Your task to perform on an android device: Show the shopping cart on amazon. Search for logitech g pro on amazon, select the first entry, add it to the cart, then select checkout. Image 0: 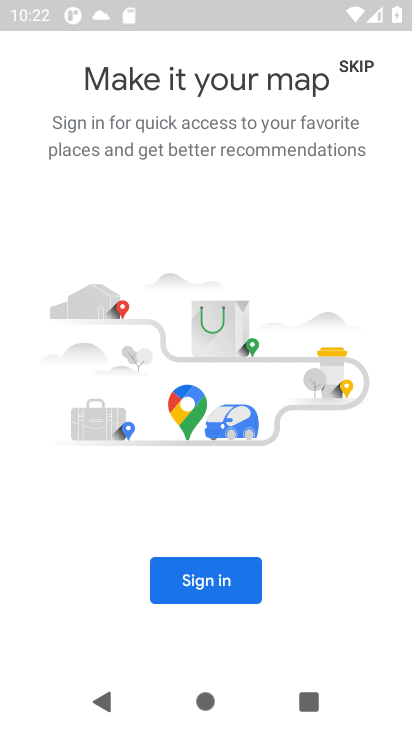
Step 0: press home button
Your task to perform on an android device: Show the shopping cart on amazon. Search for logitech g pro on amazon, select the first entry, add it to the cart, then select checkout. Image 1: 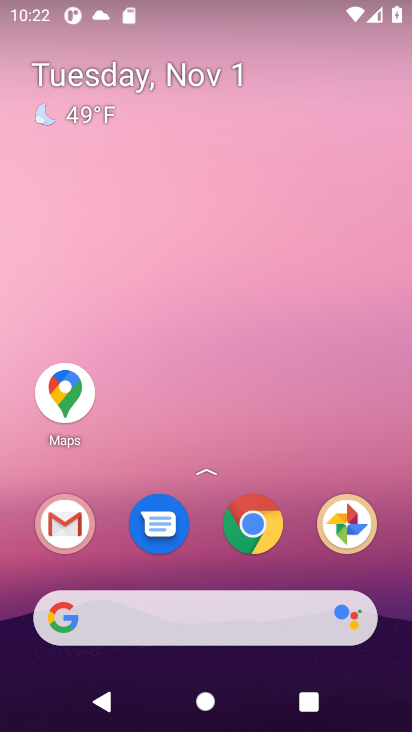
Step 1: click (91, 615)
Your task to perform on an android device: Show the shopping cart on amazon. Search for logitech g pro on amazon, select the first entry, add it to the cart, then select checkout. Image 2: 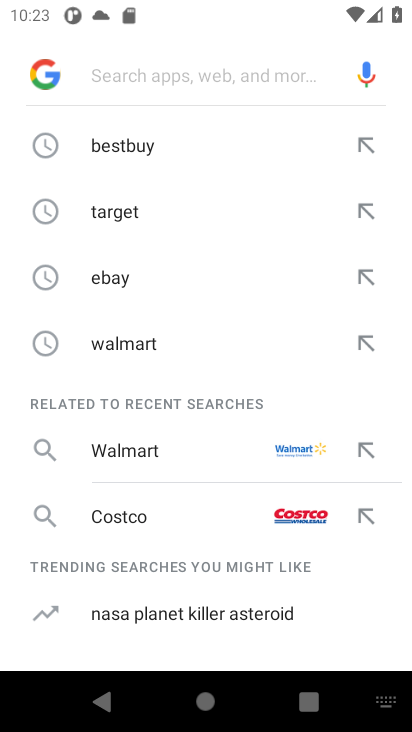
Step 2: type "amazon"
Your task to perform on an android device: Show the shopping cart on amazon. Search for logitech g pro on amazon, select the first entry, add it to the cart, then select checkout. Image 3: 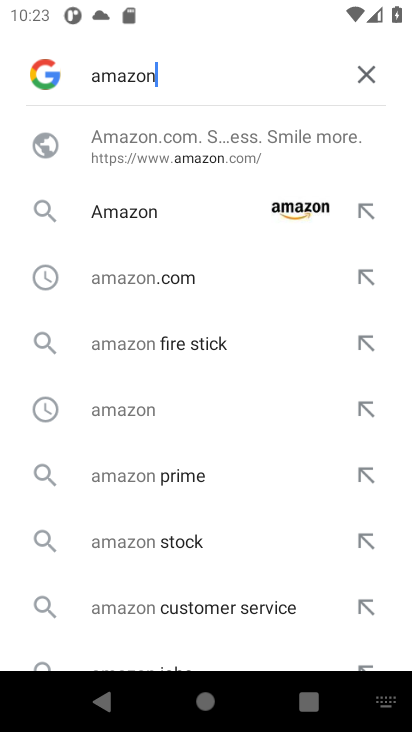
Step 3: press enter
Your task to perform on an android device: Show the shopping cart on amazon. Search for logitech g pro on amazon, select the first entry, add it to the cart, then select checkout. Image 4: 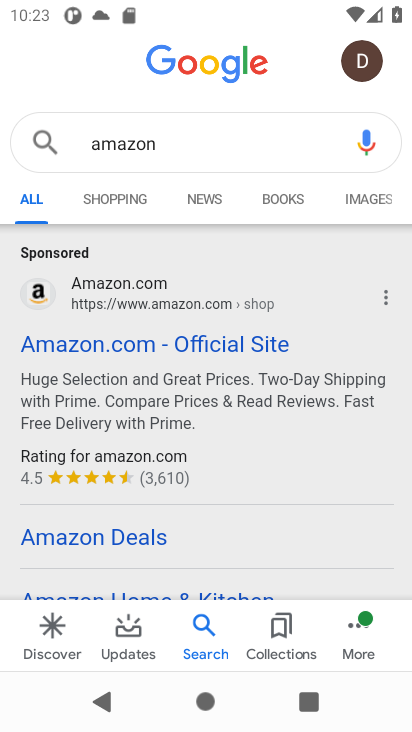
Step 4: click (134, 349)
Your task to perform on an android device: Show the shopping cart on amazon. Search for logitech g pro on amazon, select the first entry, add it to the cart, then select checkout. Image 5: 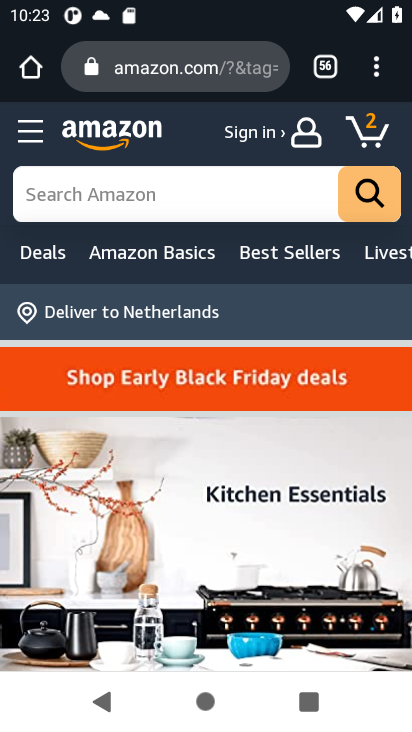
Step 5: click (368, 130)
Your task to perform on an android device: Show the shopping cart on amazon. Search for logitech g pro on amazon, select the first entry, add it to the cart, then select checkout. Image 6: 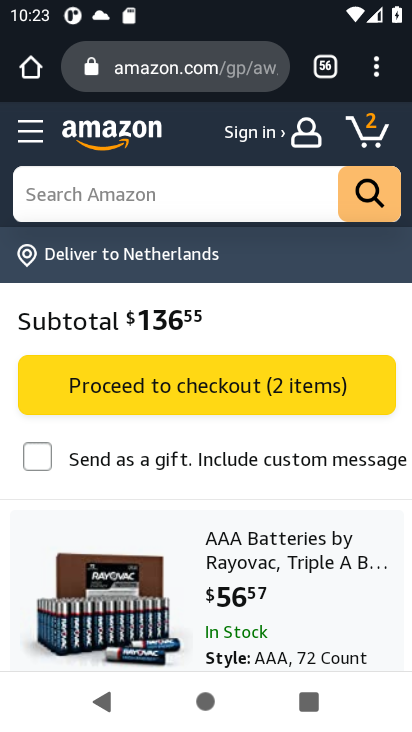
Step 6: click (118, 189)
Your task to perform on an android device: Show the shopping cart on amazon. Search for logitech g pro on amazon, select the first entry, add it to the cart, then select checkout. Image 7: 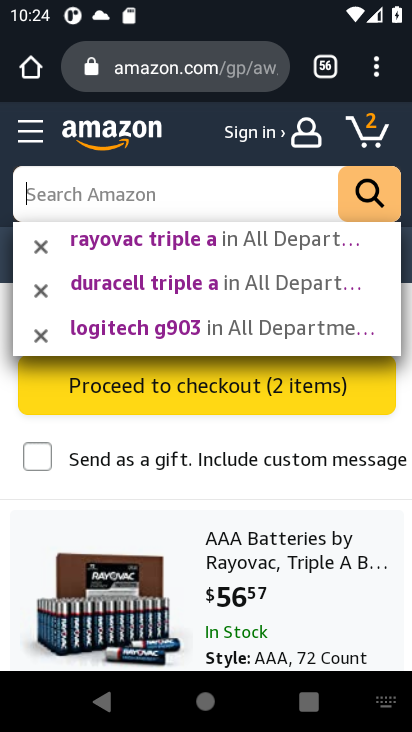
Step 7: type " logitech g pro"
Your task to perform on an android device: Show the shopping cart on amazon. Search for logitech g pro on amazon, select the first entry, add it to the cart, then select checkout. Image 8: 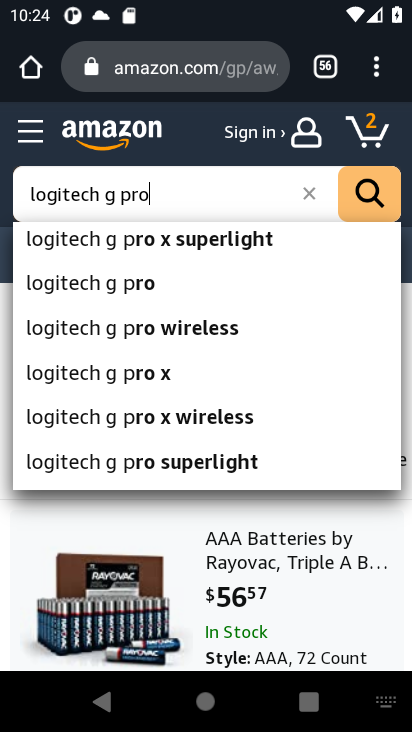
Step 8: press enter
Your task to perform on an android device: Show the shopping cart on amazon. Search for logitech g pro on amazon, select the first entry, add it to the cart, then select checkout. Image 9: 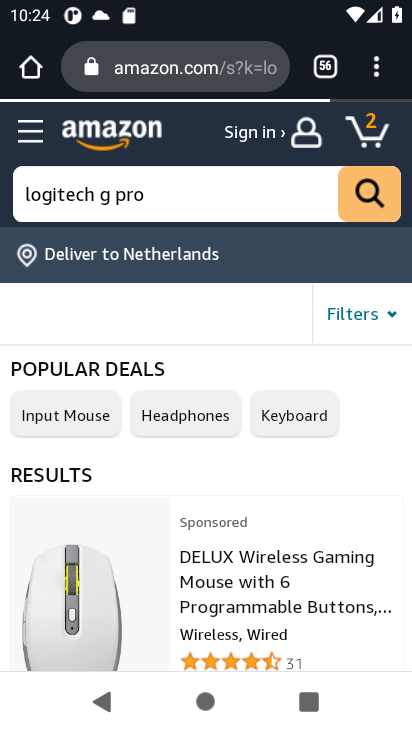
Step 9: drag from (316, 604) to (317, 350)
Your task to perform on an android device: Show the shopping cart on amazon. Search for logitech g pro on amazon, select the first entry, add it to the cart, then select checkout. Image 10: 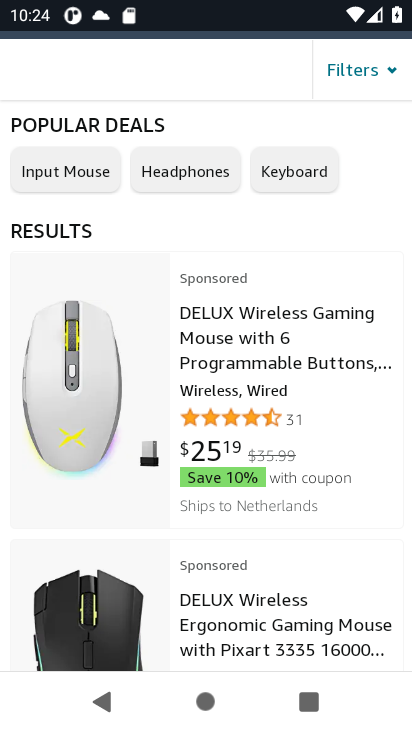
Step 10: drag from (282, 572) to (288, 372)
Your task to perform on an android device: Show the shopping cart on amazon. Search for logitech g pro on amazon, select the first entry, add it to the cart, then select checkout. Image 11: 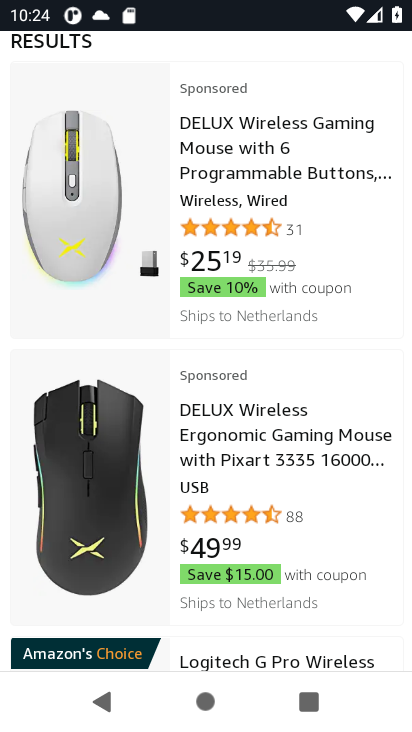
Step 11: drag from (278, 521) to (293, 274)
Your task to perform on an android device: Show the shopping cart on amazon. Search for logitech g pro on amazon, select the first entry, add it to the cart, then select checkout. Image 12: 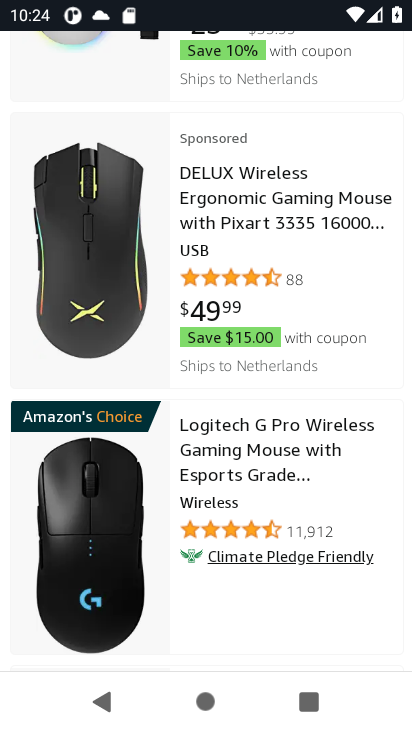
Step 12: drag from (293, 521) to (301, 287)
Your task to perform on an android device: Show the shopping cart on amazon. Search for logitech g pro on amazon, select the first entry, add it to the cart, then select checkout. Image 13: 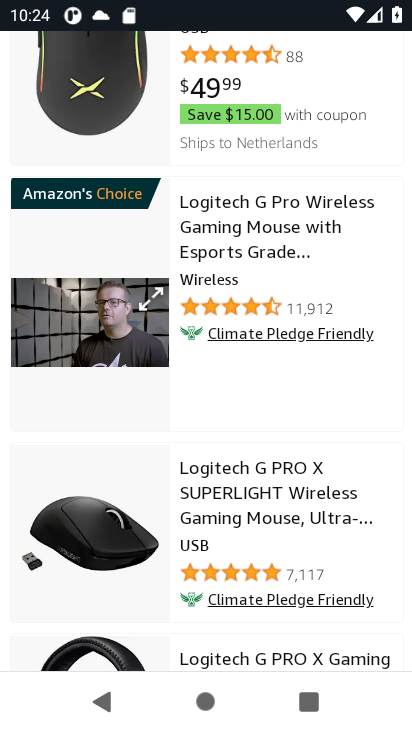
Step 13: click (254, 233)
Your task to perform on an android device: Show the shopping cart on amazon. Search for logitech g pro on amazon, select the first entry, add it to the cart, then select checkout. Image 14: 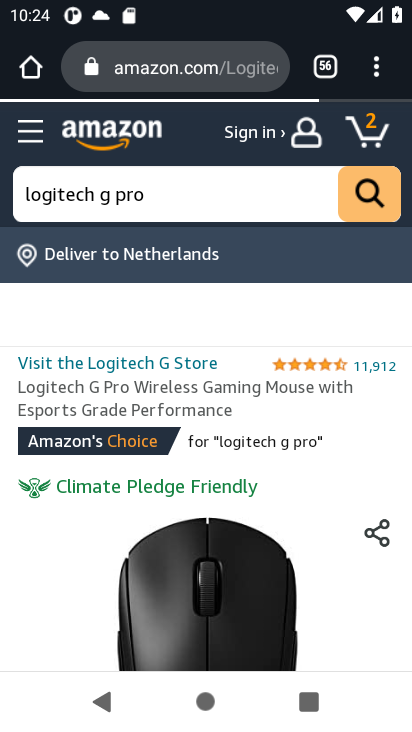
Step 14: drag from (287, 540) to (351, 244)
Your task to perform on an android device: Show the shopping cart on amazon. Search for logitech g pro on amazon, select the first entry, add it to the cart, then select checkout. Image 15: 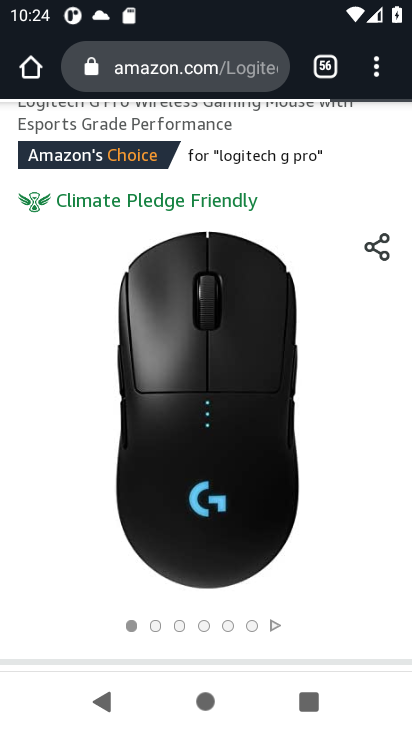
Step 15: drag from (328, 531) to (283, 257)
Your task to perform on an android device: Show the shopping cart on amazon. Search for logitech g pro on amazon, select the first entry, add it to the cart, then select checkout. Image 16: 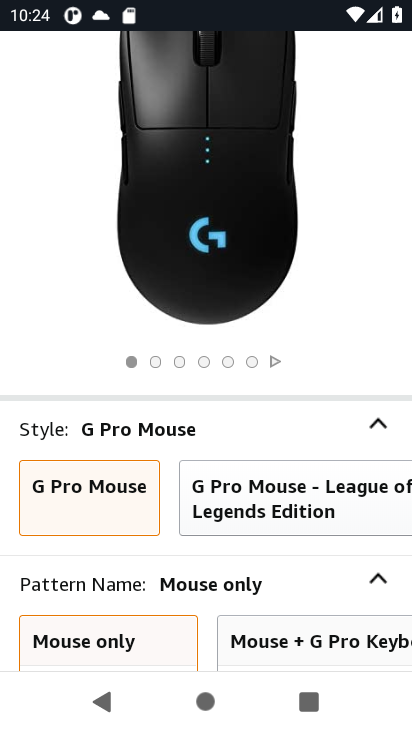
Step 16: drag from (277, 514) to (282, 247)
Your task to perform on an android device: Show the shopping cart on amazon. Search for logitech g pro on amazon, select the first entry, add it to the cart, then select checkout. Image 17: 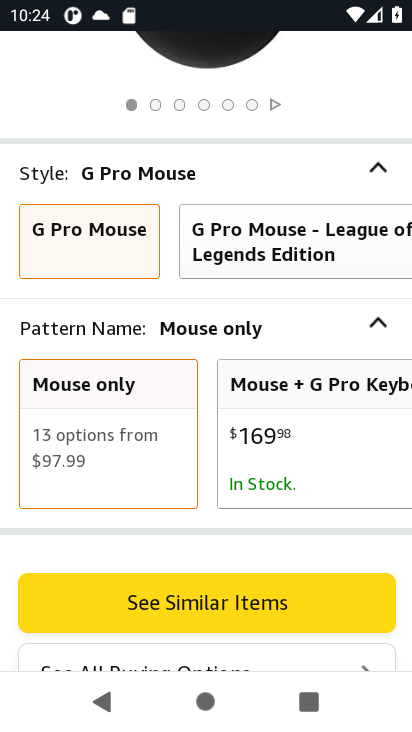
Step 17: drag from (274, 508) to (271, 274)
Your task to perform on an android device: Show the shopping cart on amazon. Search for logitech g pro on amazon, select the first entry, add it to the cart, then select checkout. Image 18: 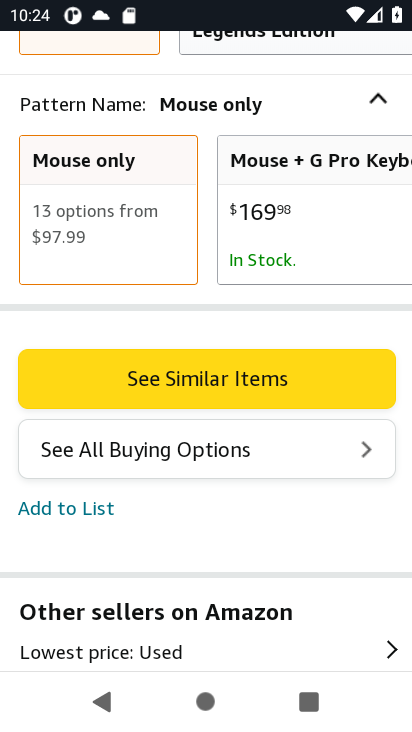
Step 18: click (66, 505)
Your task to perform on an android device: Show the shopping cart on amazon. Search for logitech g pro on amazon, select the first entry, add it to the cart, then select checkout. Image 19: 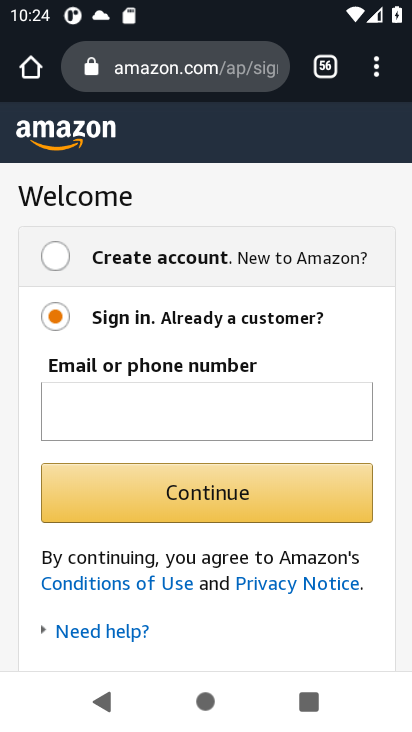
Step 19: task complete